Your task to perform on an android device: Open notification settings Image 0: 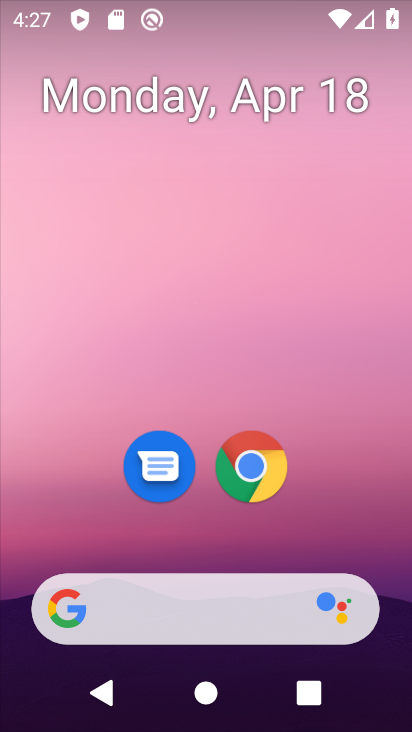
Step 0: drag from (348, 542) to (267, 16)
Your task to perform on an android device: Open notification settings Image 1: 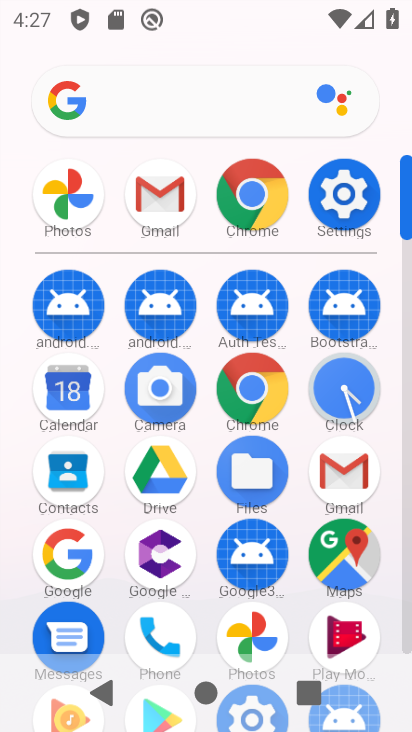
Step 1: drag from (5, 443) to (8, 192)
Your task to perform on an android device: Open notification settings Image 2: 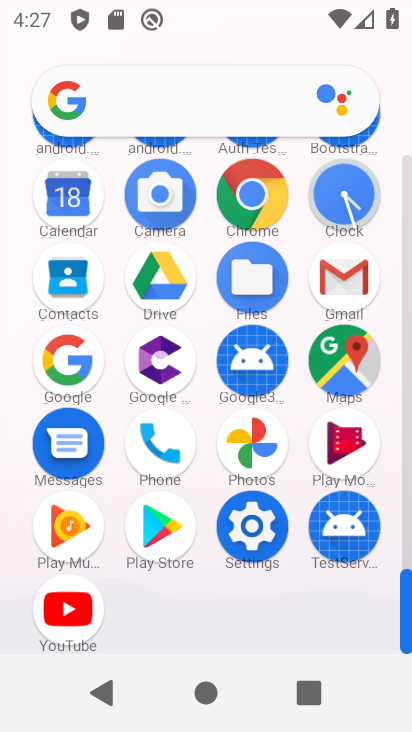
Step 2: click (248, 523)
Your task to perform on an android device: Open notification settings Image 3: 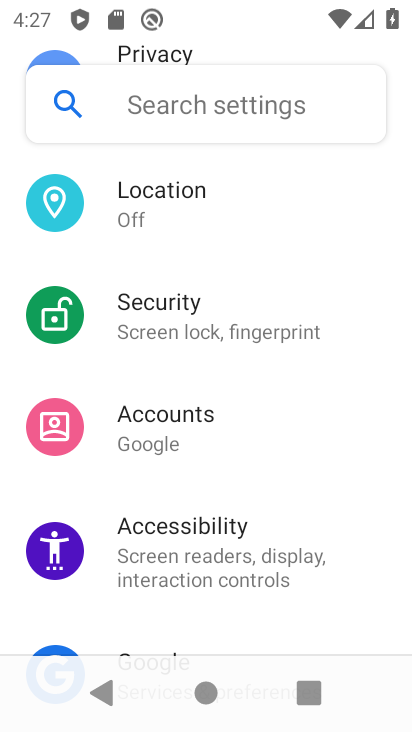
Step 3: drag from (270, 193) to (249, 536)
Your task to perform on an android device: Open notification settings Image 4: 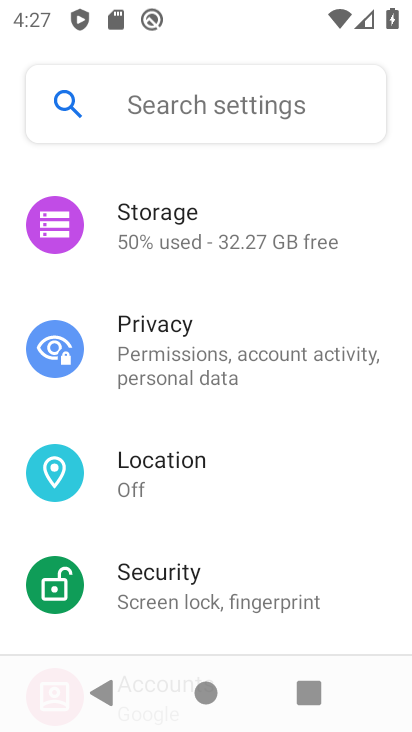
Step 4: drag from (256, 272) to (235, 568)
Your task to perform on an android device: Open notification settings Image 5: 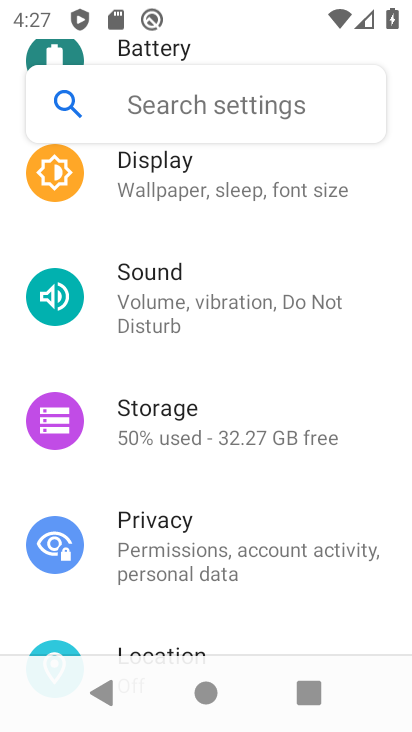
Step 5: drag from (263, 229) to (231, 513)
Your task to perform on an android device: Open notification settings Image 6: 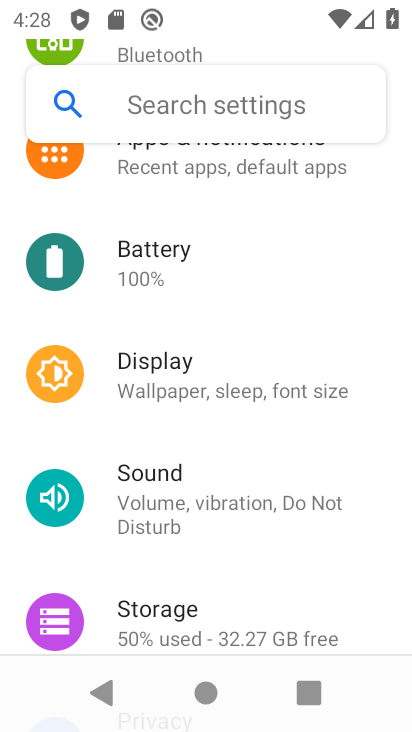
Step 6: drag from (257, 251) to (231, 493)
Your task to perform on an android device: Open notification settings Image 7: 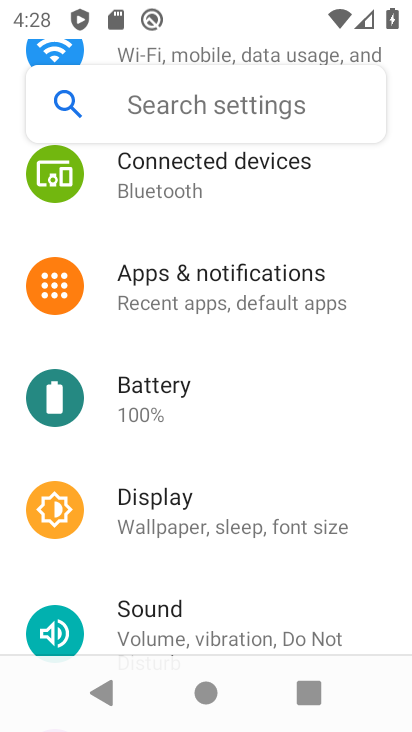
Step 7: click (277, 293)
Your task to perform on an android device: Open notification settings Image 8: 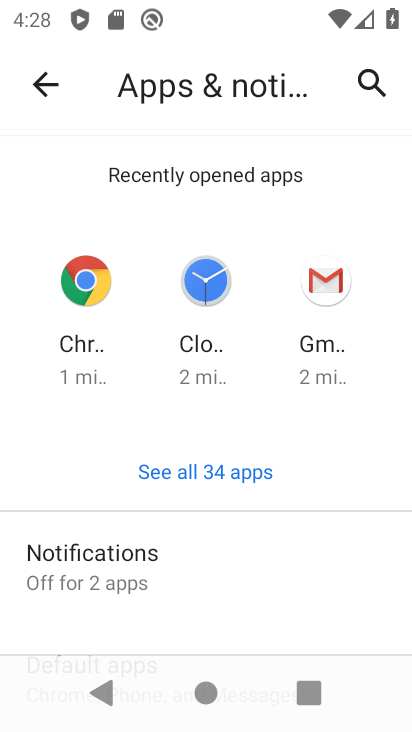
Step 8: drag from (255, 559) to (260, 196)
Your task to perform on an android device: Open notification settings Image 9: 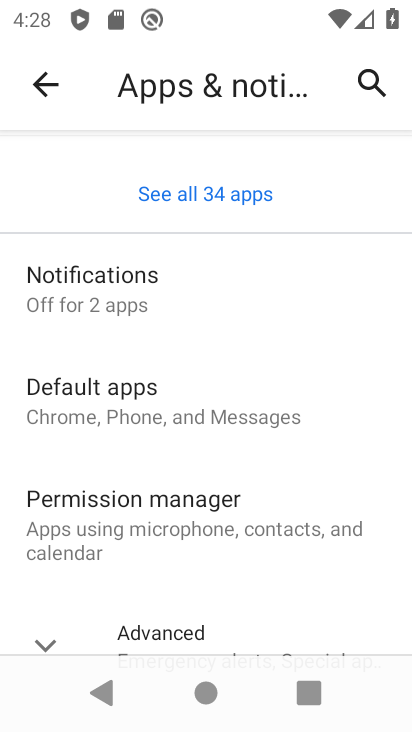
Step 9: click (172, 282)
Your task to perform on an android device: Open notification settings Image 10: 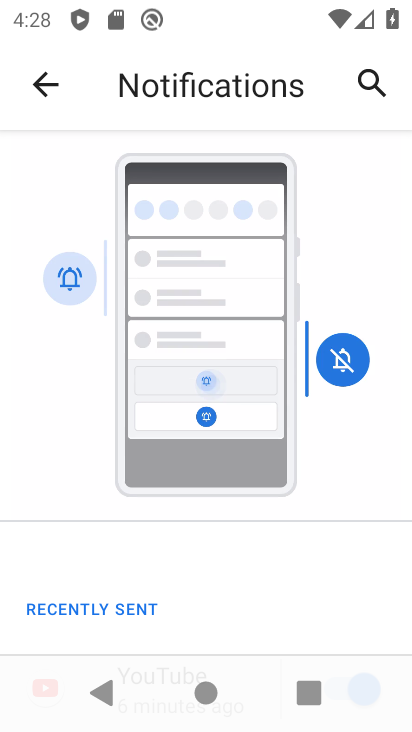
Step 10: drag from (185, 576) to (211, 132)
Your task to perform on an android device: Open notification settings Image 11: 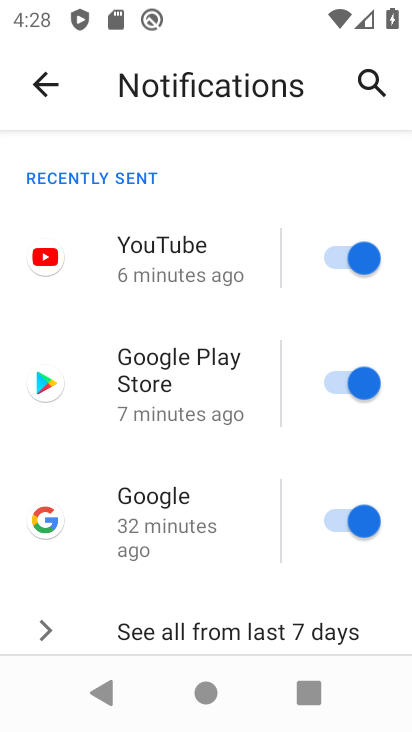
Step 11: drag from (177, 527) to (205, 160)
Your task to perform on an android device: Open notification settings Image 12: 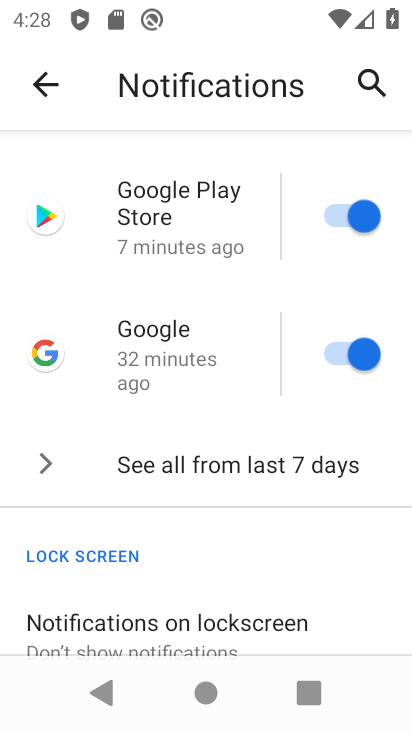
Step 12: drag from (183, 550) to (205, 162)
Your task to perform on an android device: Open notification settings Image 13: 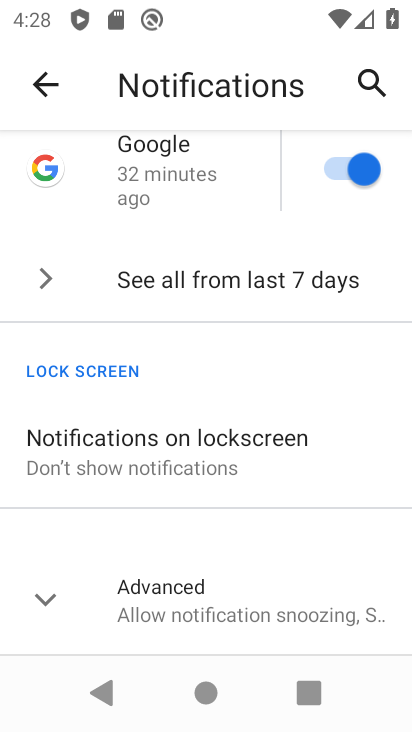
Step 13: click (156, 607)
Your task to perform on an android device: Open notification settings Image 14: 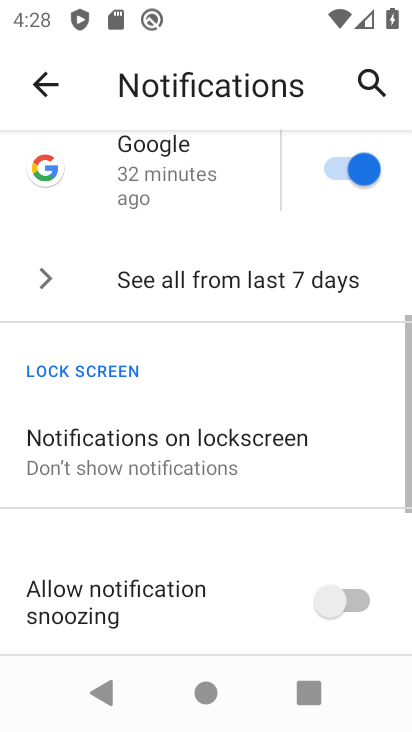
Step 14: task complete